Your task to perform on an android device: check the backup settings in the google photos Image 0: 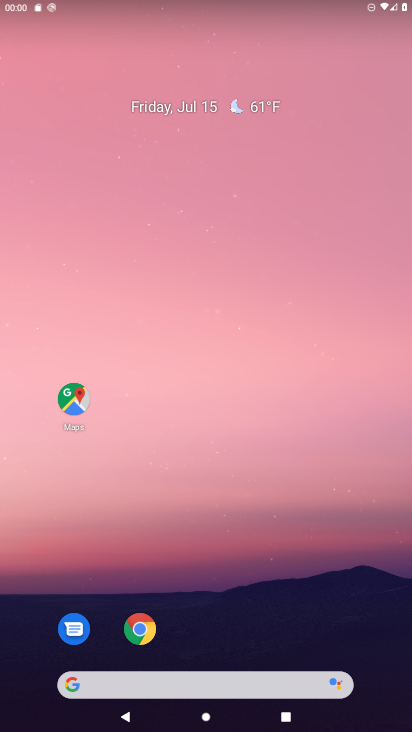
Step 0: drag from (212, 609) to (213, 34)
Your task to perform on an android device: check the backup settings in the google photos Image 1: 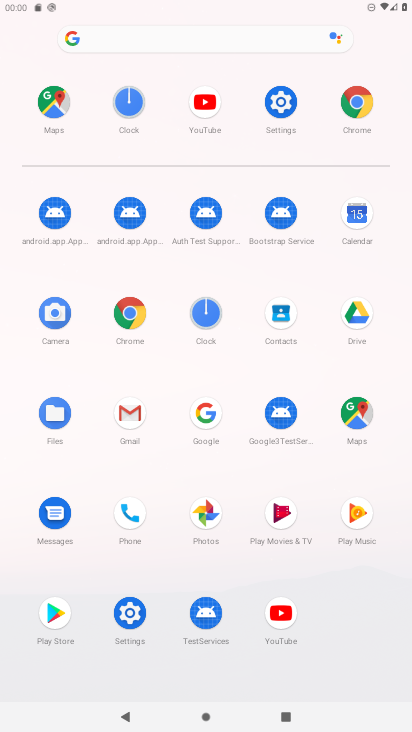
Step 1: click (206, 514)
Your task to perform on an android device: check the backup settings in the google photos Image 2: 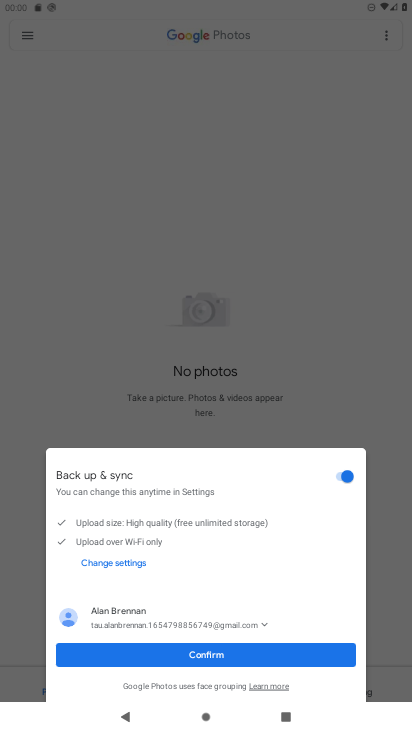
Step 2: click (230, 651)
Your task to perform on an android device: check the backup settings in the google photos Image 3: 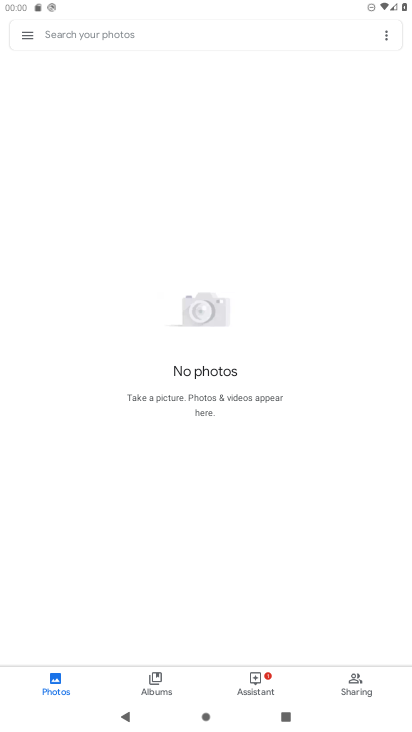
Step 3: click (35, 27)
Your task to perform on an android device: check the backup settings in the google photos Image 4: 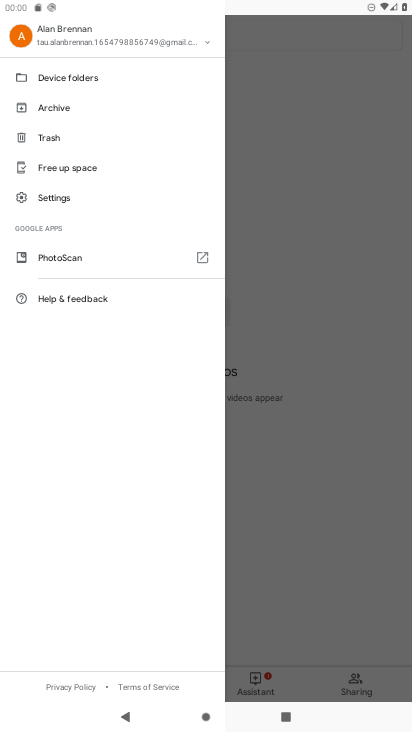
Step 4: click (67, 182)
Your task to perform on an android device: check the backup settings in the google photos Image 5: 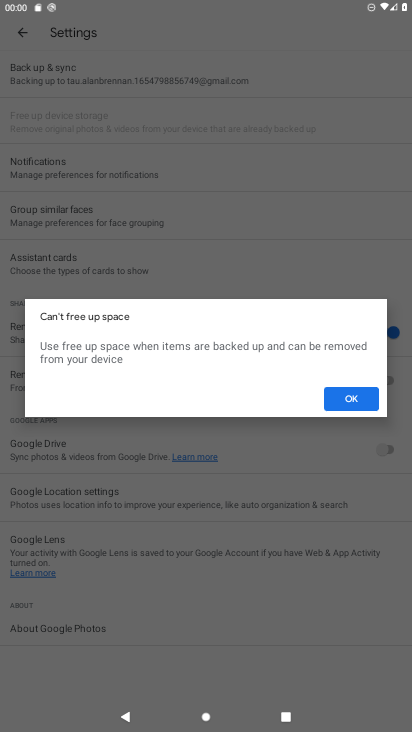
Step 5: click (362, 398)
Your task to perform on an android device: check the backup settings in the google photos Image 6: 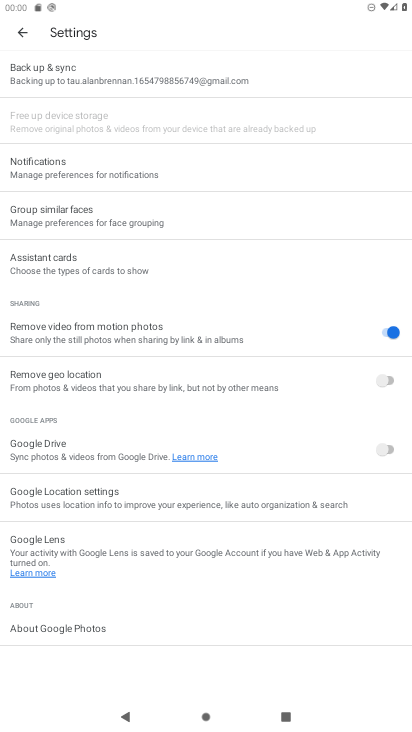
Step 6: click (149, 80)
Your task to perform on an android device: check the backup settings in the google photos Image 7: 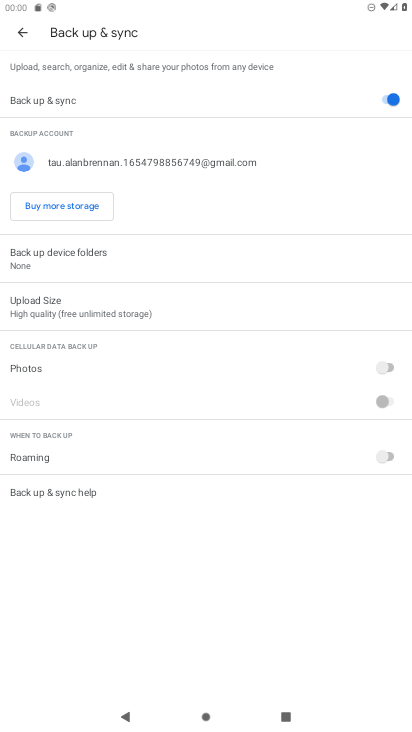
Step 7: task complete